Your task to perform on an android device: open the mobile data screen to see how much data has been used Image 0: 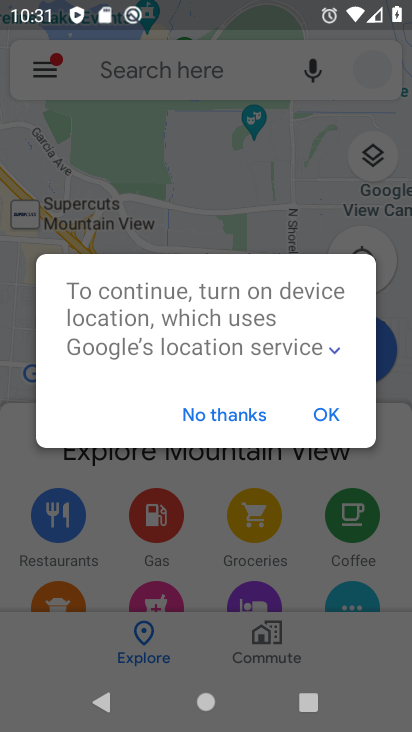
Step 0: press home button
Your task to perform on an android device: open the mobile data screen to see how much data has been used Image 1: 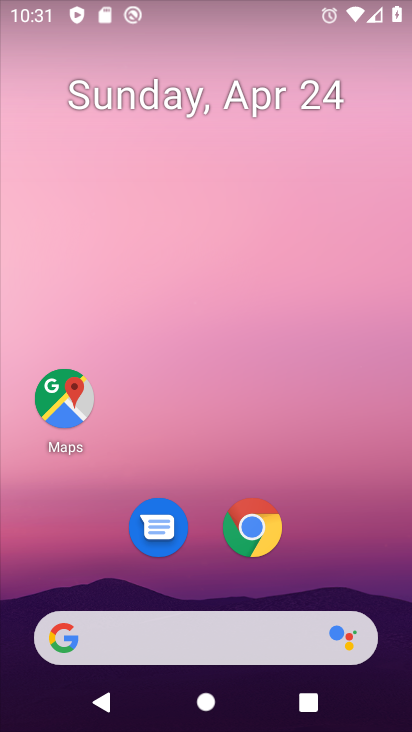
Step 1: drag from (218, 518) to (297, 78)
Your task to perform on an android device: open the mobile data screen to see how much data has been used Image 2: 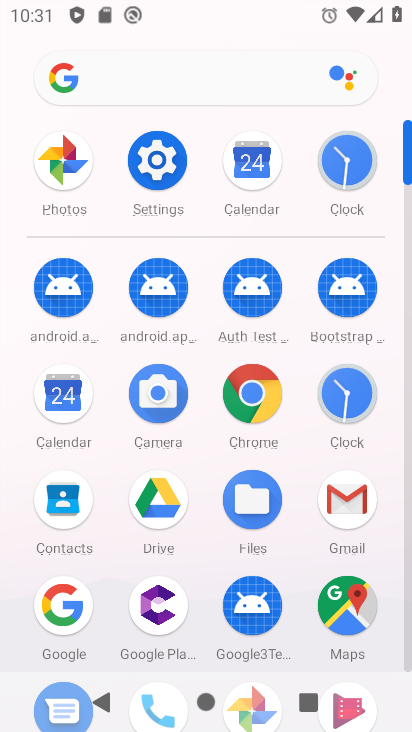
Step 2: click (168, 151)
Your task to perform on an android device: open the mobile data screen to see how much data has been used Image 3: 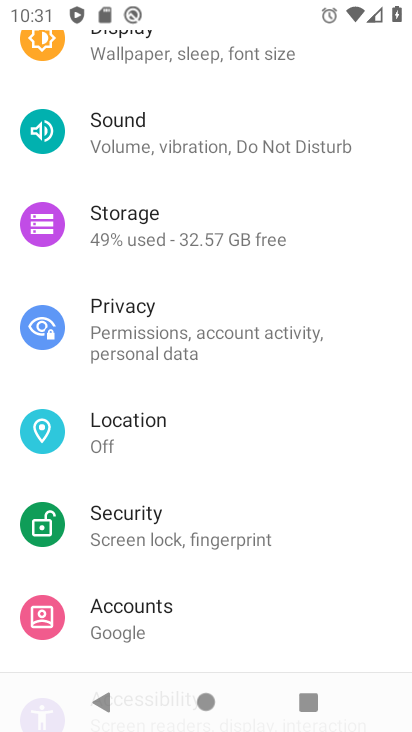
Step 3: drag from (203, 162) to (155, 676)
Your task to perform on an android device: open the mobile data screen to see how much data has been used Image 4: 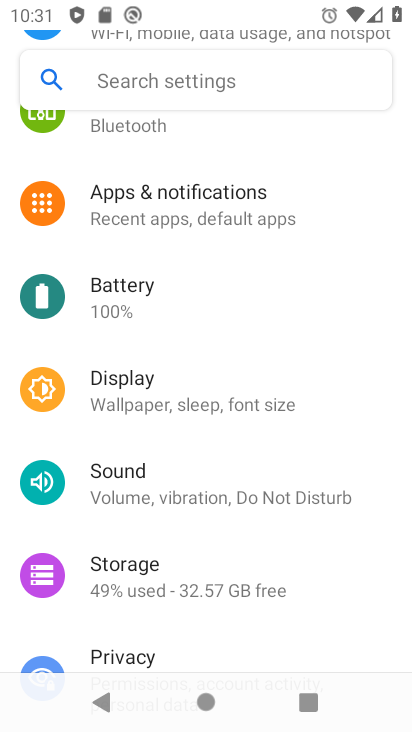
Step 4: drag from (182, 260) to (154, 662)
Your task to perform on an android device: open the mobile data screen to see how much data has been used Image 5: 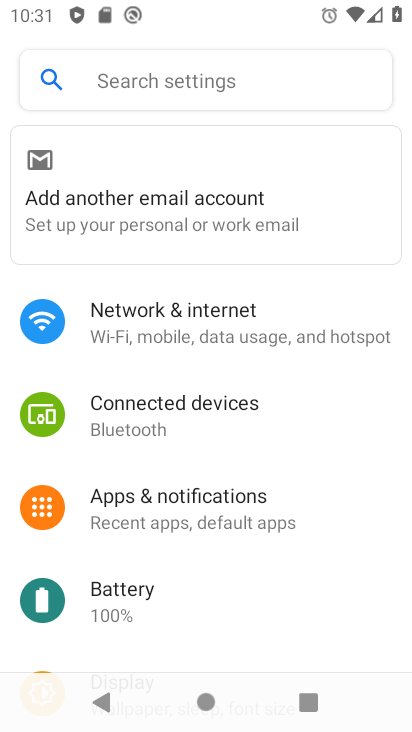
Step 5: click (139, 325)
Your task to perform on an android device: open the mobile data screen to see how much data has been used Image 6: 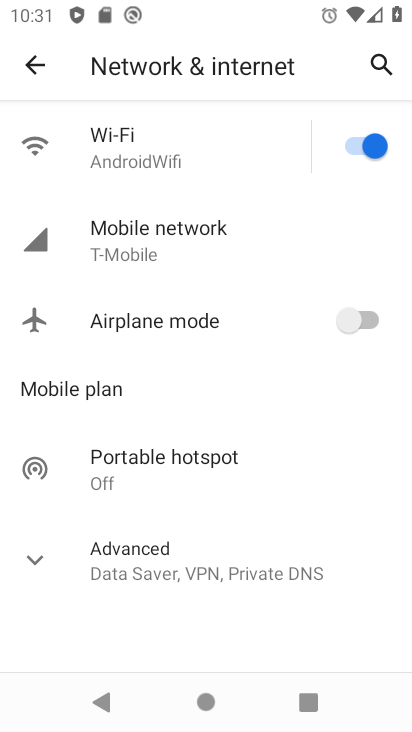
Step 6: click (148, 227)
Your task to perform on an android device: open the mobile data screen to see how much data has been used Image 7: 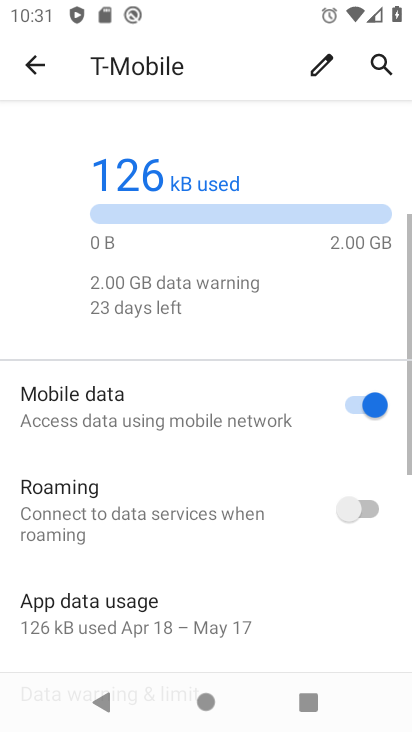
Step 7: drag from (161, 565) to (198, 358)
Your task to perform on an android device: open the mobile data screen to see how much data has been used Image 8: 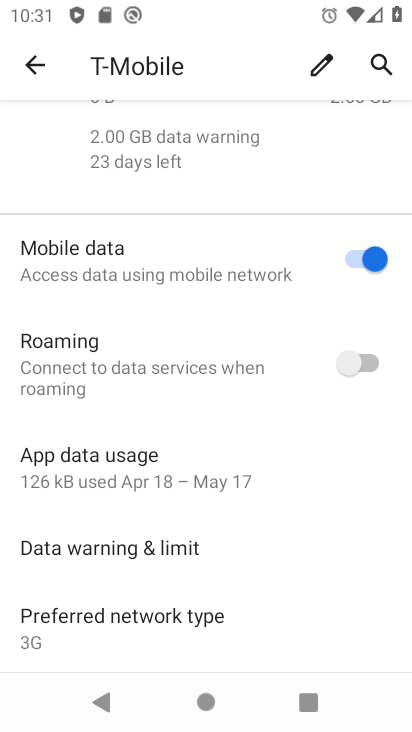
Step 8: click (150, 461)
Your task to perform on an android device: open the mobile data screen to see how much data has been used Image 9: 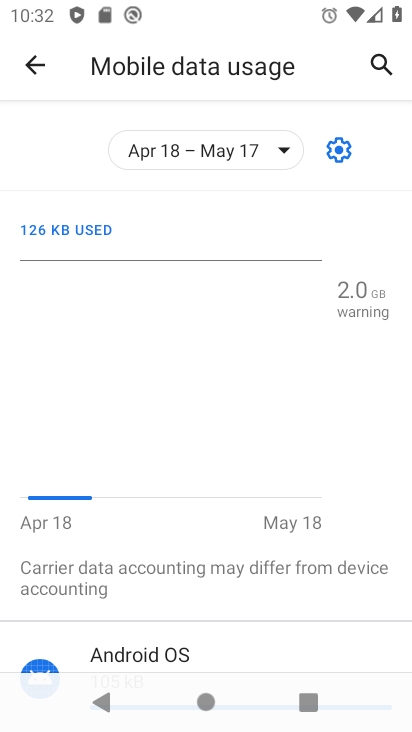
Step 9: task complete